Your task to perform on an android device: read, delete, or share a saved page in the chrome app Image 0: 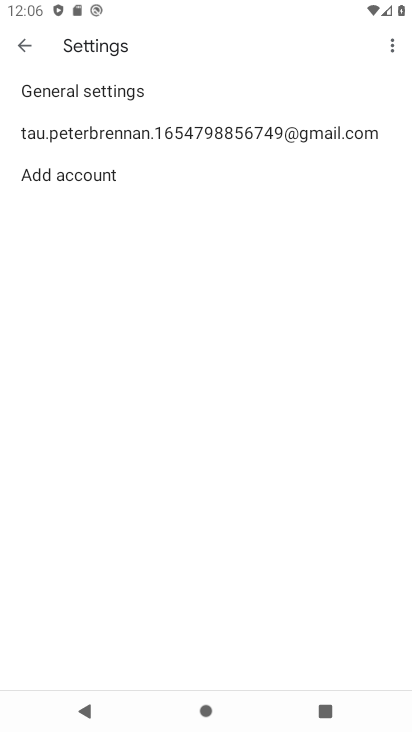
Step 0: press home button
Your task to perform on an android device: read, delete, or share a saved page in the chrome app Image 1: 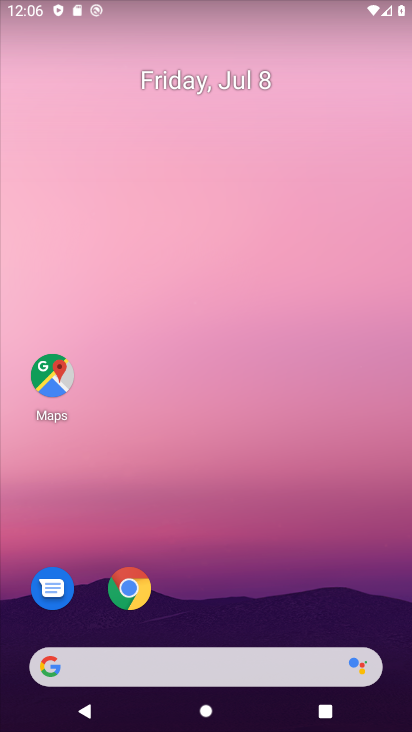
Step 1: click (128, 599)
Your task to perform on an android device: read, delete, or share a saved page in the chrome app Image 2: 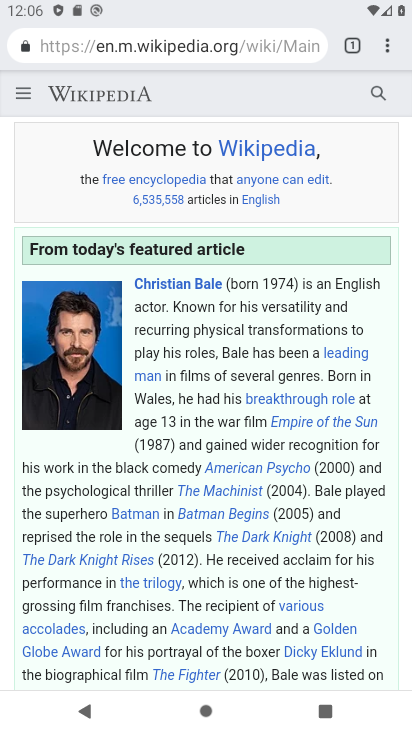
Step 2: click (383, 54)
Your task to perform on an android device: read, delete, or share a saved page in the chrome app Image 3: 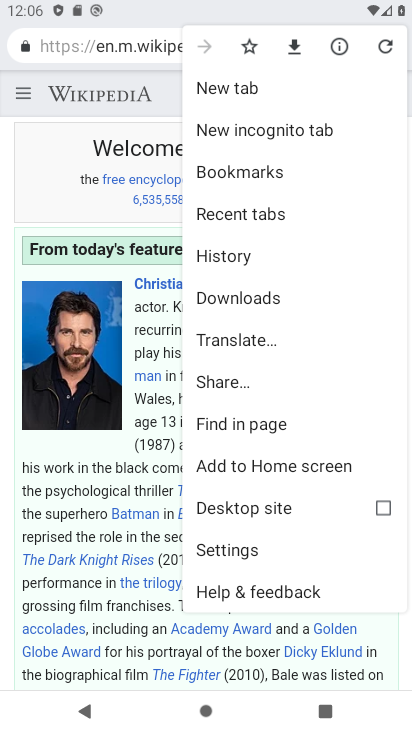
Step 3: task complete